Your task to perform on an android device: Open ESPN.com Image 0: 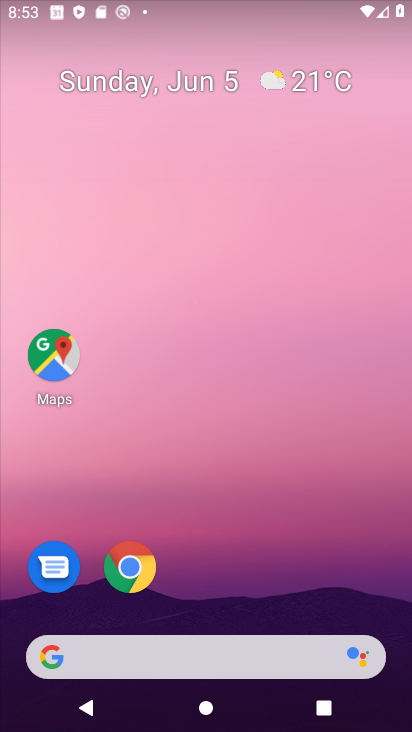
Step 0: click (125, 561)
Your task to perform on an android device: Open ESPN.com Image 1: 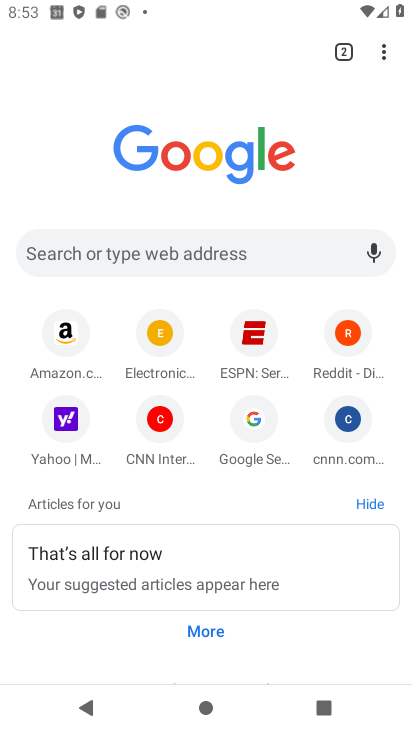
Step 1: click (234, 349)
Your task to perform on an android device: Open ESPN.com Image 2: 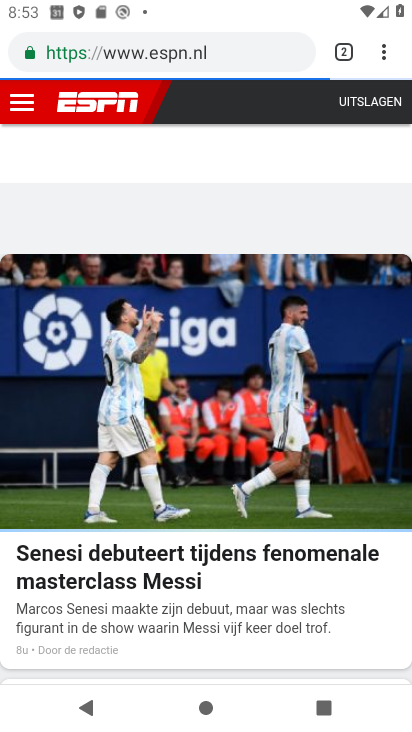
Step 2: task complete